Your task to perform on an android device: Is it going to rain tomorrow? Image 0: 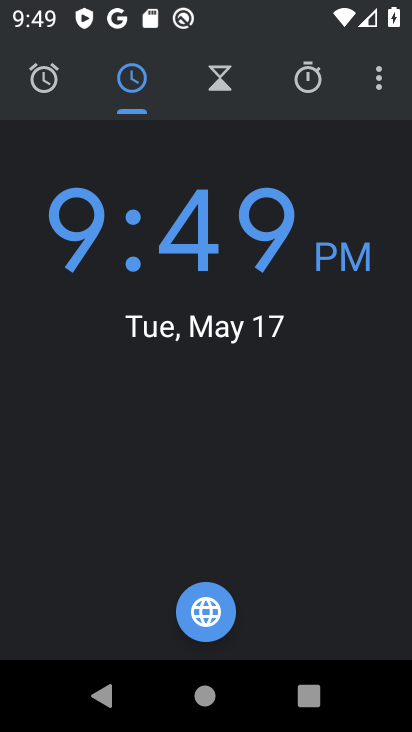
Step 0: press home button
Your task to perform on an android device: Is it going to rain tomorrow? Image 1: 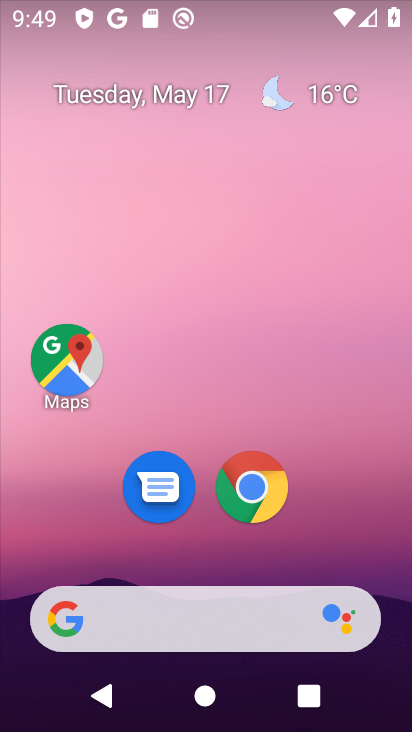
Step 1: click (323, 90)
Your task to perform on an android device: Is it going to rain tomorrow? Image 2: 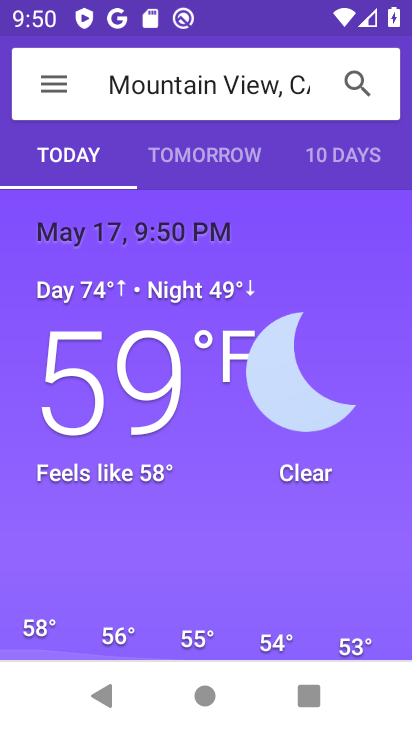
Step 2: task complete